Your task to perform on an android device: Show me popular videos on Youtube Image 0: 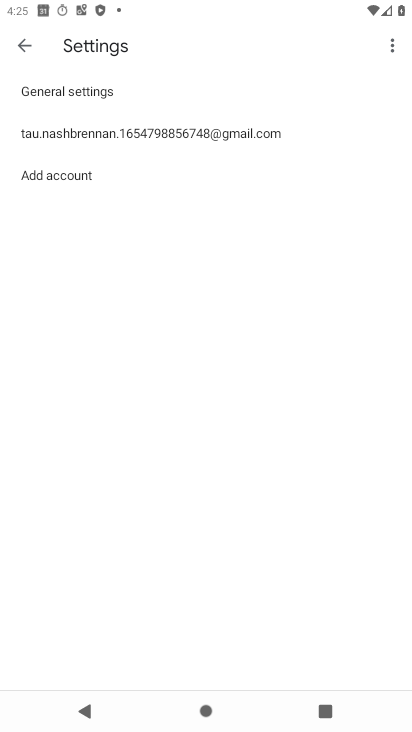
Step 0: press home button
Your task to perform on an android device: Show me popular videos on Youtube Image 1: 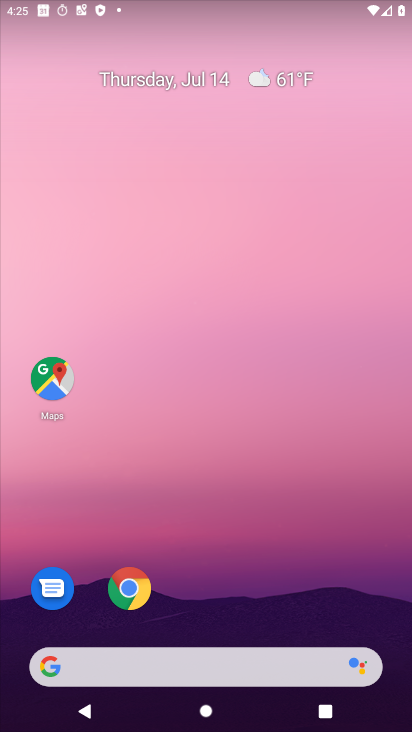
Step 1: drag from (197, 665) to (272, 210)
Your task to perform on an android device: Show me popular videos on Youtube Image 2: 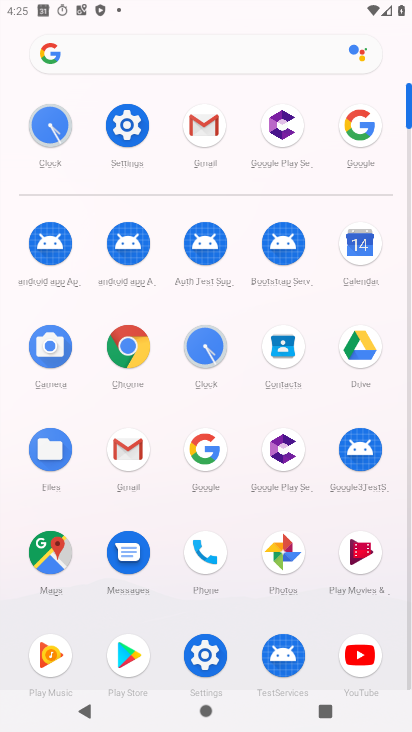
Step 2: click (359, 656)
Your task to perform on an android device: Show me popular videos on Youtube Image 3: 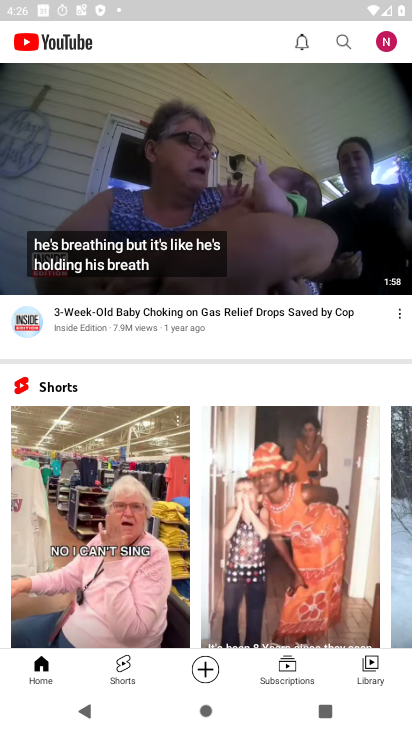
Step 3: click (351, 46)
Your task to perform on an android device: Show me popular videos on Youtube Image 4: 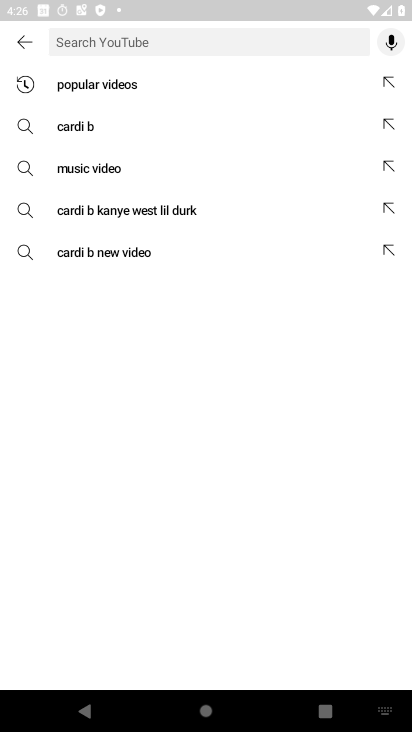
Step 4: click (132, 86)
Your task to perform on an android device: Show me popular videos on Youtube Image 5: 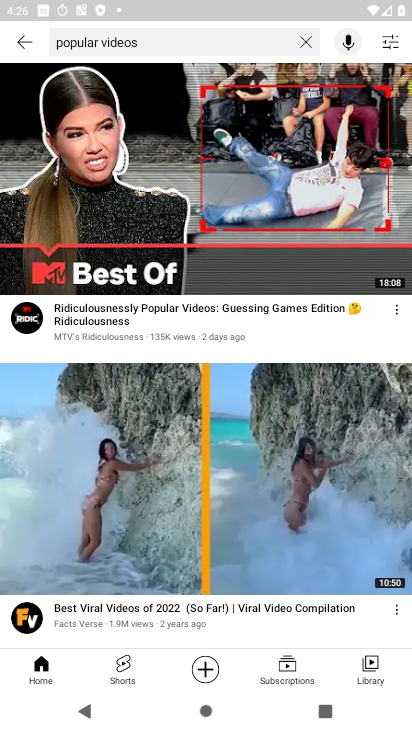
Step 5: task complete